Your task to perform on an android device: turn smart compose on in the gmail app Image 0: 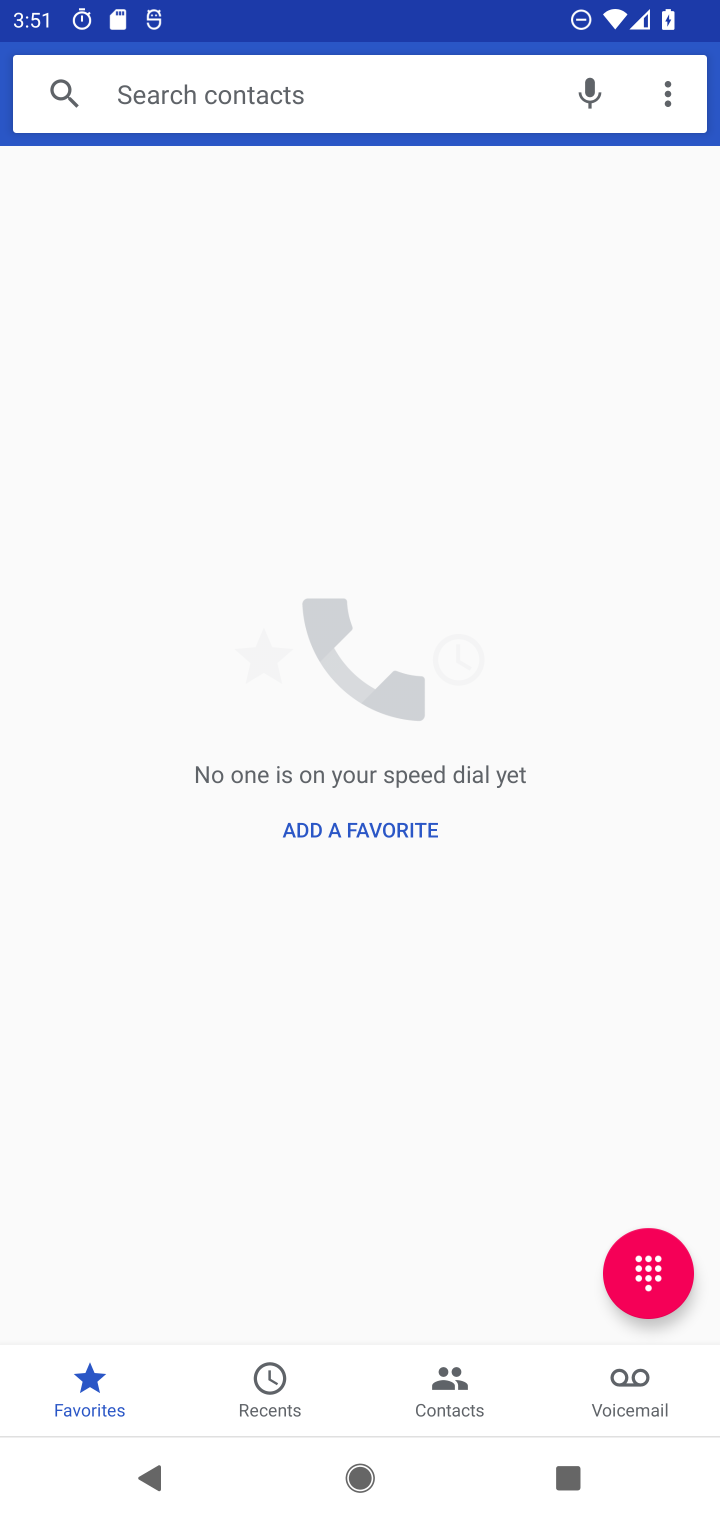
Step 0: press back button
Your task to perform on an android device: turn smart compose on in the gmail app Image 1: 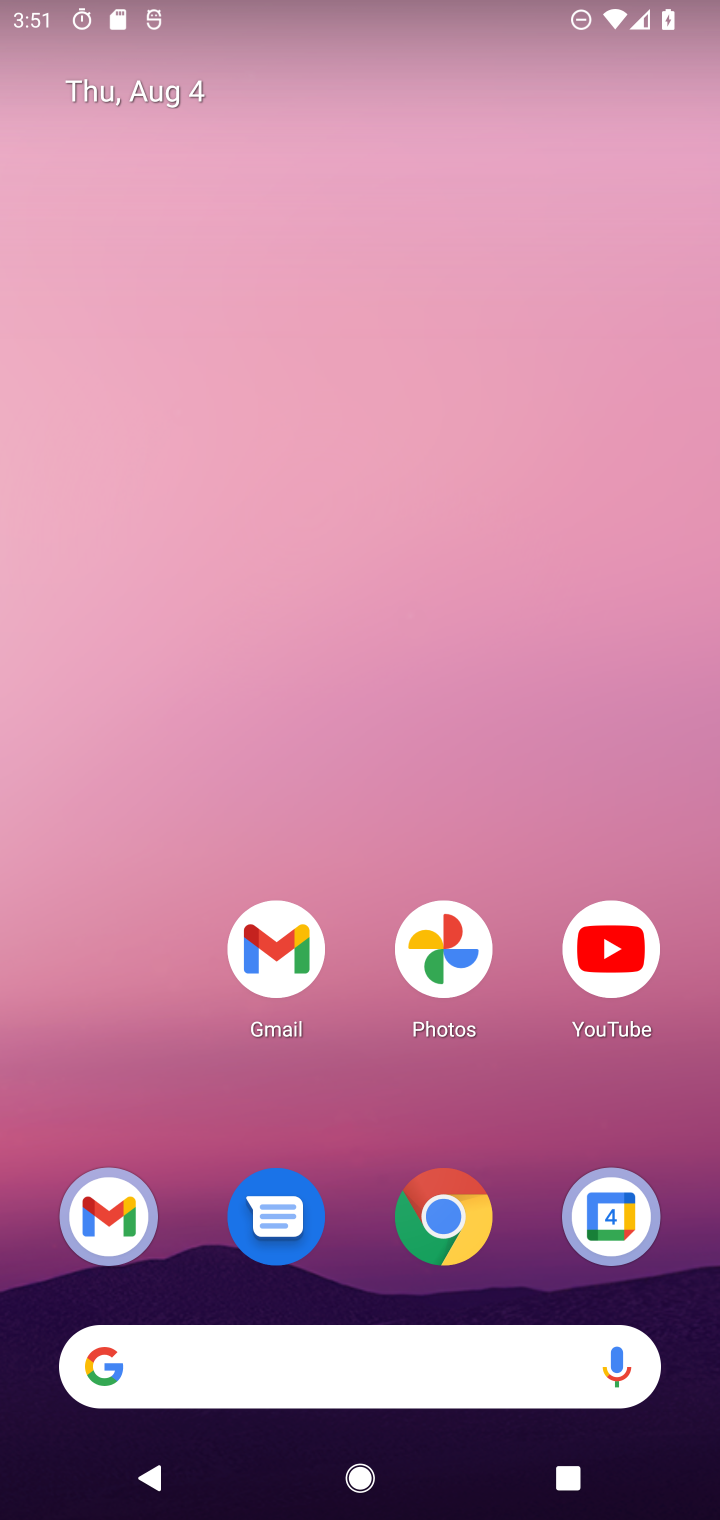
Step 1: click (260, 942)
Your task to perform on an android device: turn smart compose on in the gmail app Image 2: 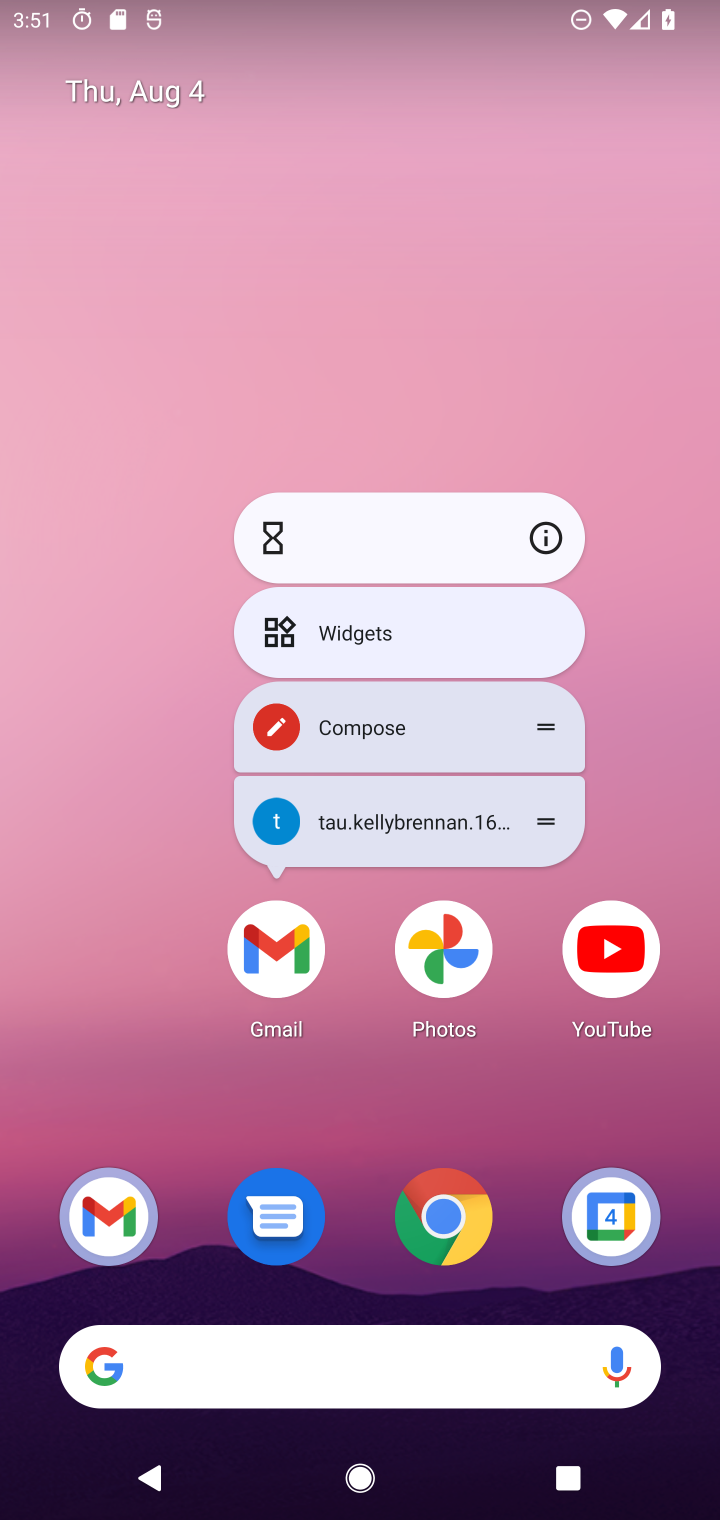
Step 2: click (268, 935)
Your task to perform on an android device: turn smart compose on in the gmail app Image 3: 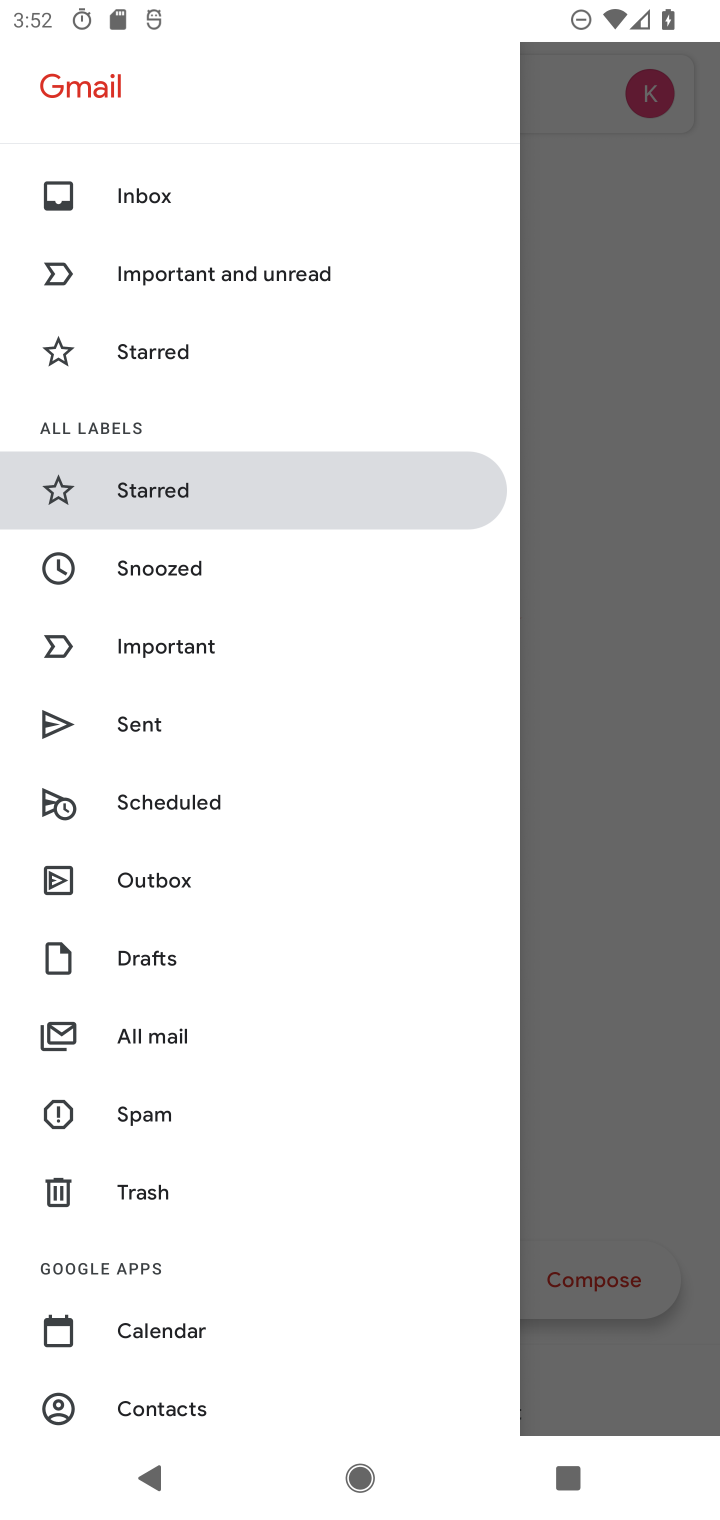
Step 3: drag from (304, 1277) to (504, 28)
Your task to perform on an android device: turn smart compose on in the gmail app Image 4: 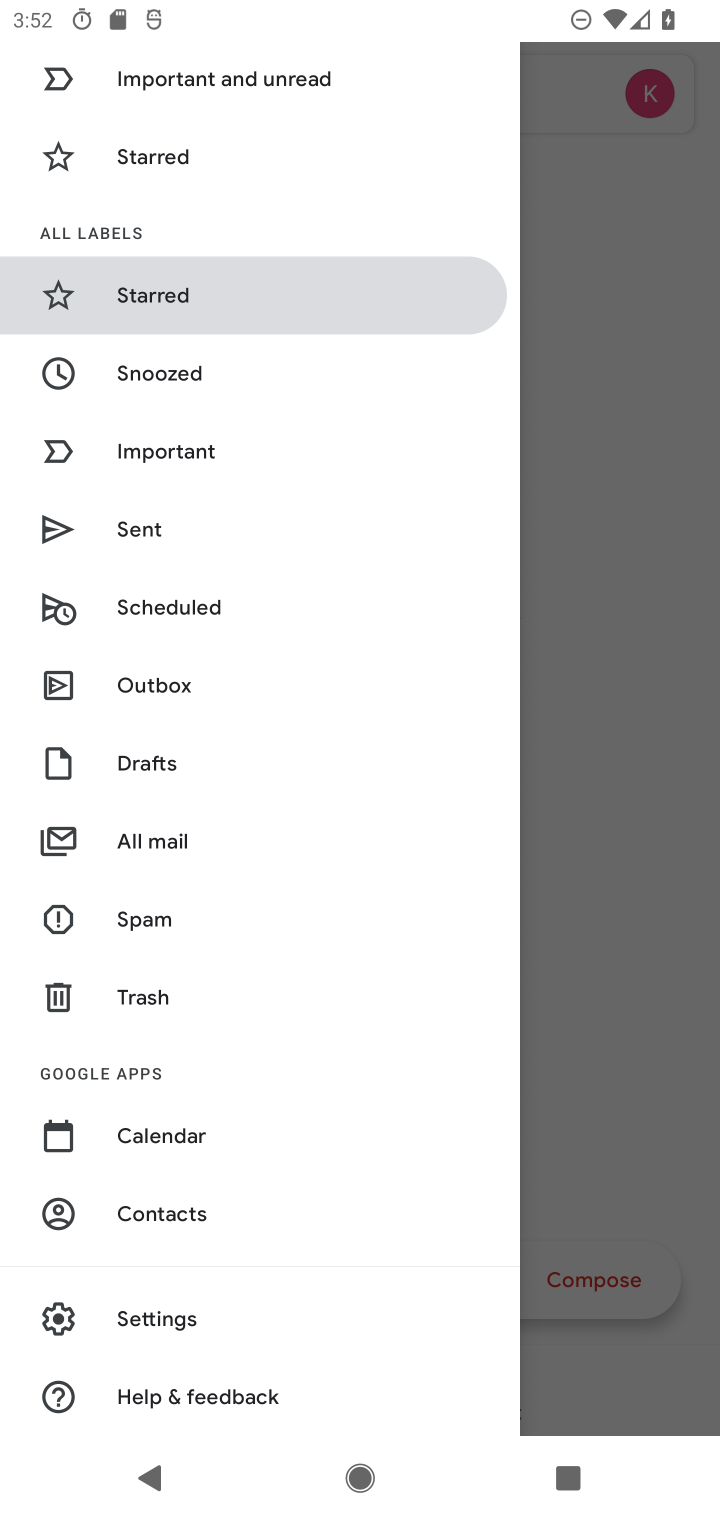
Step 4: click (143, 1306)
Your task to perform on an android device: turn smart compose on in the gmail app Image 5: 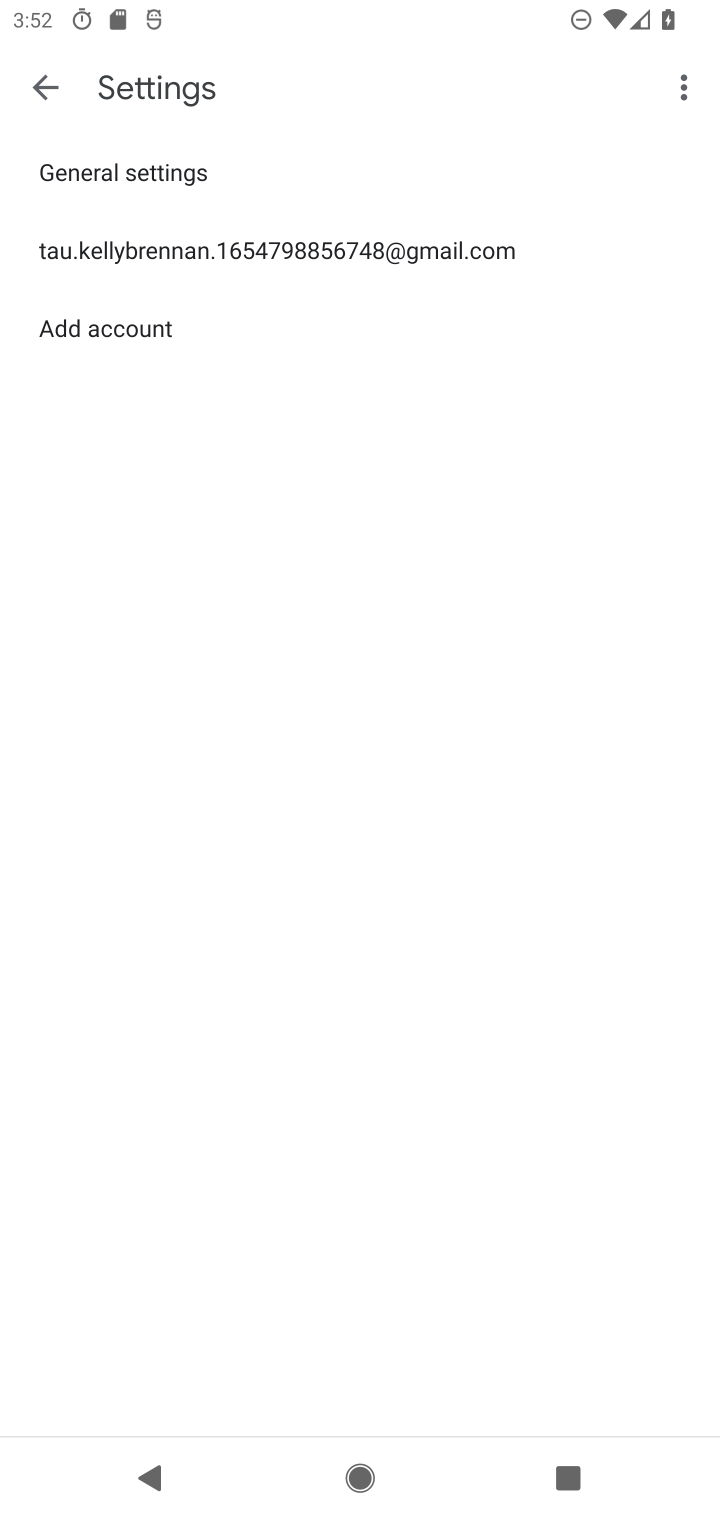
Step 5: click (266, 249)
Your task to perform on an android device: turn smart compose on in the gmail app Image 6: 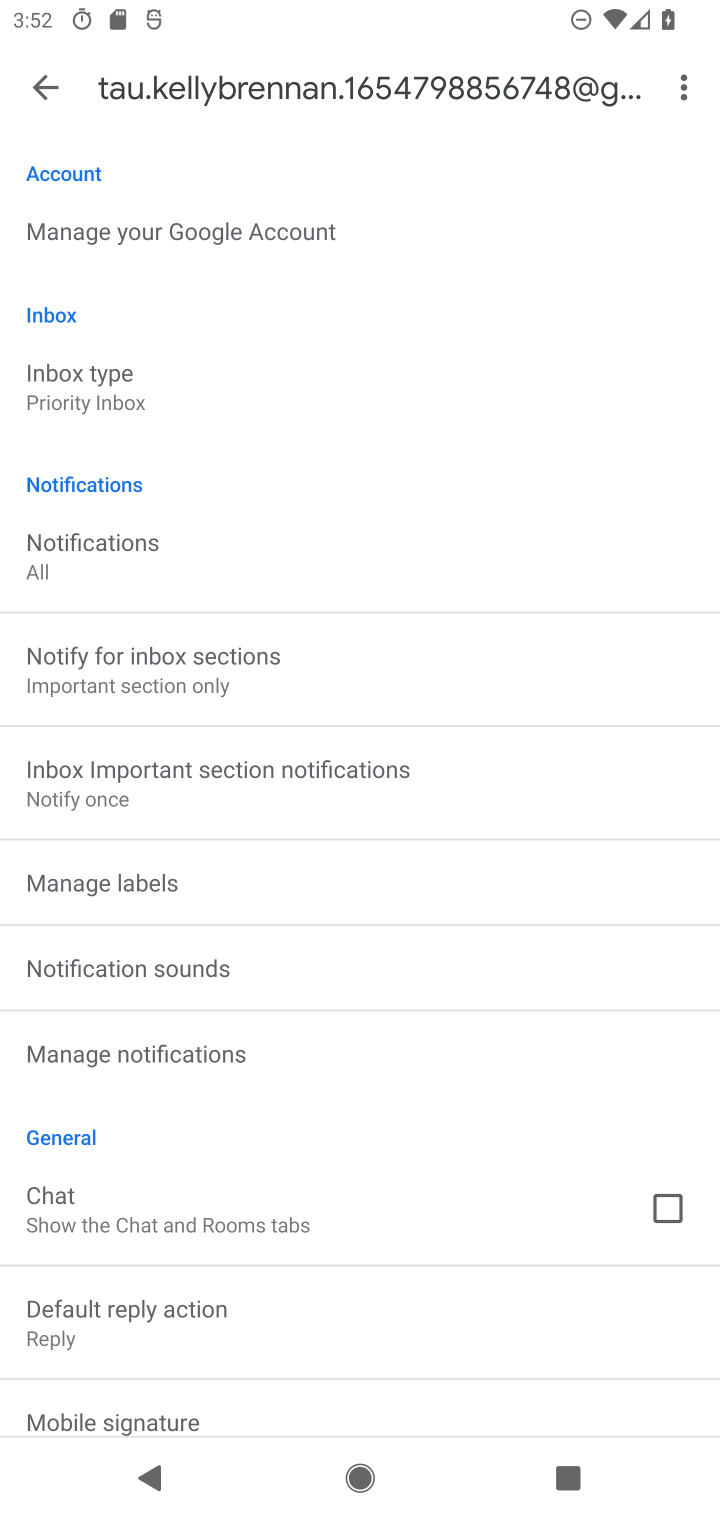
Step 6: task complete